Your task to perform on an android device: What's on my calendar tomorrow? Image 0: 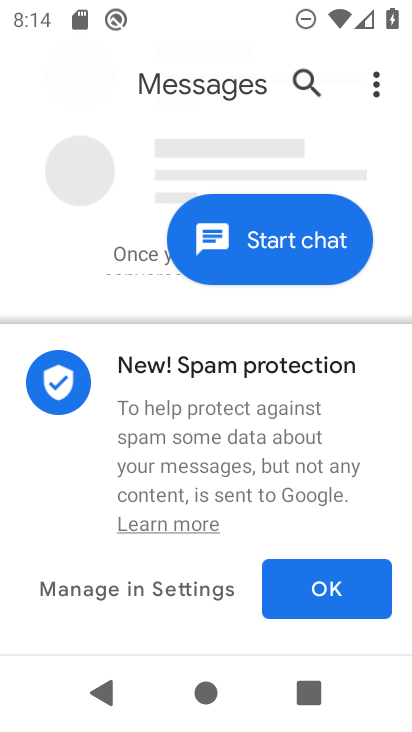
Step 0: press home button
Your task to perform on an android device: What's on my calendar tomorrow? Image 1: 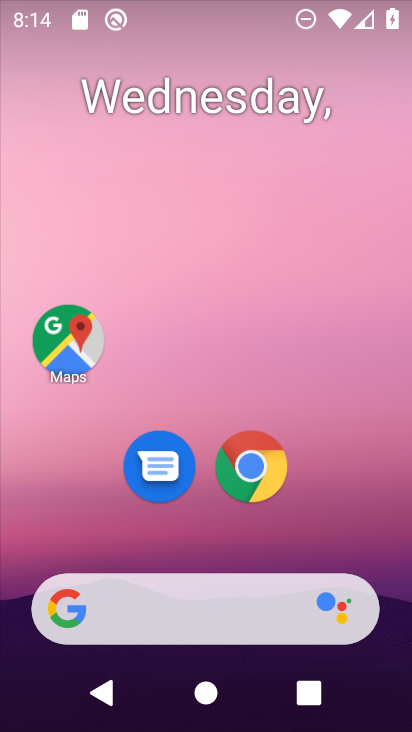
Step 1: drag from (245, 518) to (274, 50)
Your task to perform on an android device: What's on my calendar tomorrow? Image 2: 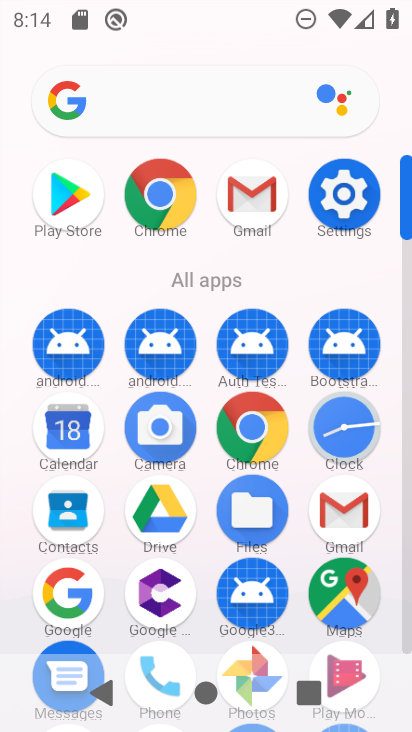
Step 2: click (71, 439)
Your task to perform on an android device: What's on my calendar tomorrow? Image 3: 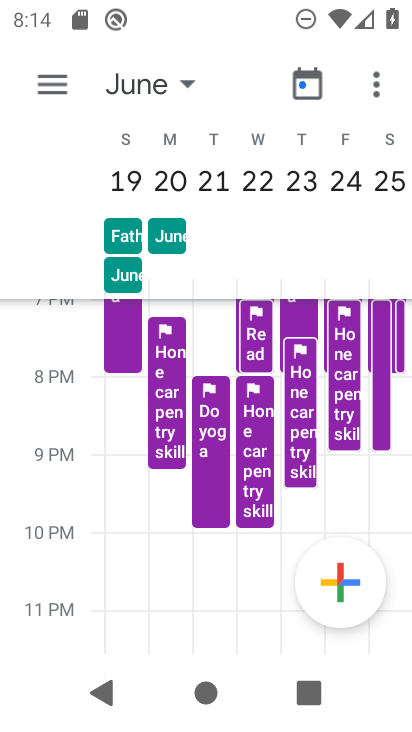
Step 3: drag from (189, 183) to (410, 187)
Your task to perform on an android device: What's on my calendar tomorrow? Image 4: 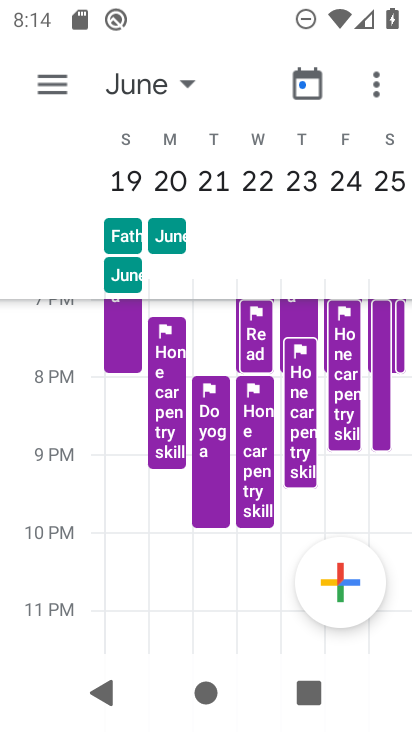
Step 4: drag from (136, 188) to (393, 218)
Your task to perform on an android device: What's on my calendar tomorrow? Image 5: 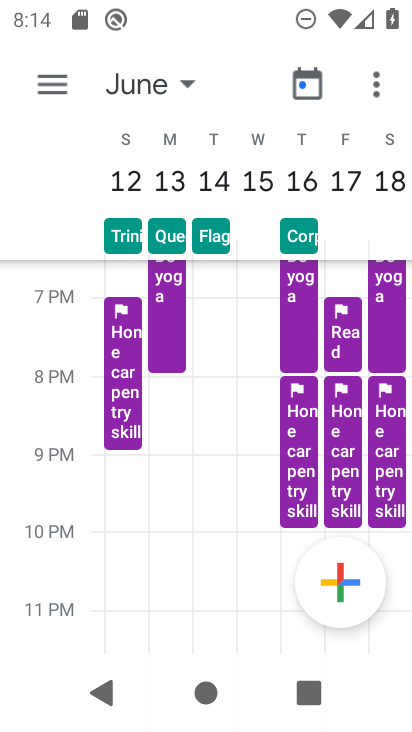
Step 5: click (157, 87)
Your task to perform on an android device: What's on my calendar tomorrow? Image 6: 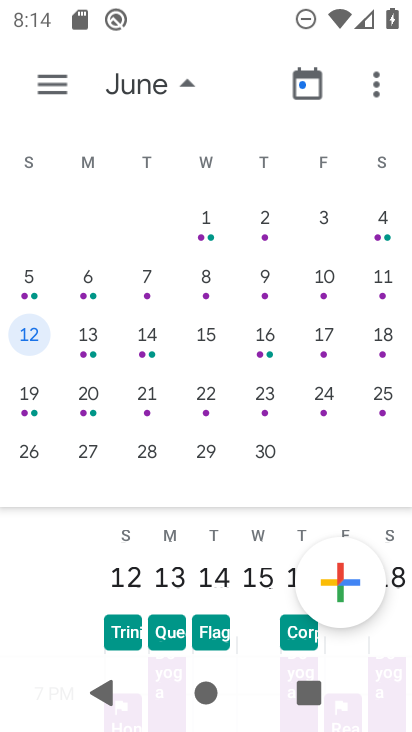
Step 6: drag from (39, 318) to (410, 412)
Your task to perform on an android device: What's on my calendar tomorrow? Image 7: 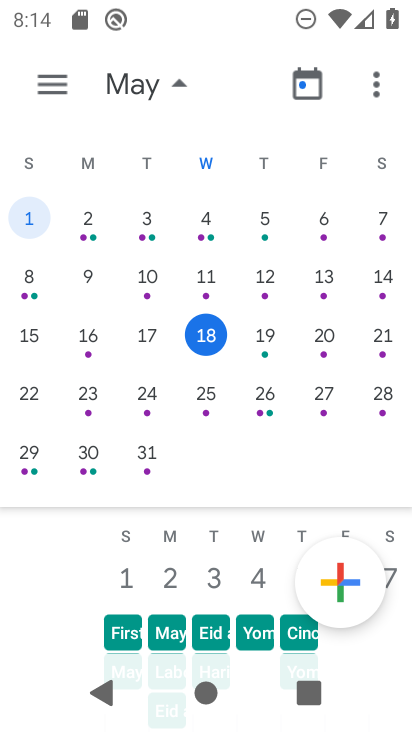
Step 7: click (204, 323)
Your task to perform on an android device: What's on my calendar tomorrow? Image 8: 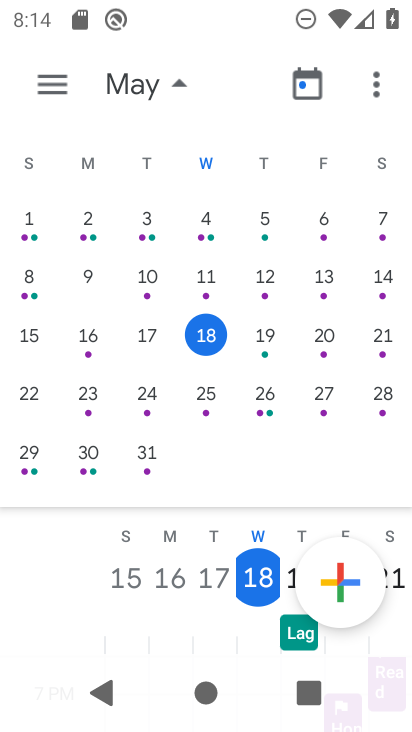
Step 8: click (205, 323)
Your task to perform on an android device: What's on my calendar tomorrow? Image 9: 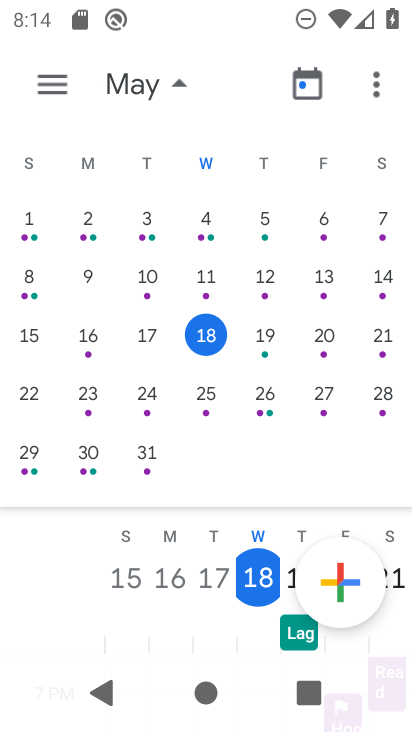
Step 9: click (39, 70)
Your task to perform on an android device: What's on my calendar tomorrow? Image 10: 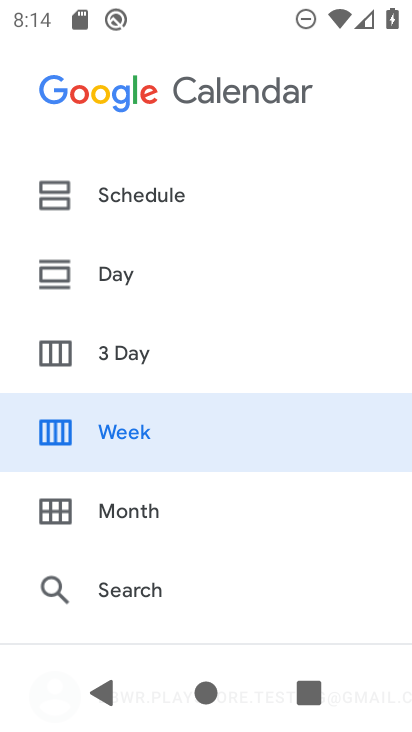
Step 10: click (133, 360)
Your task to perform on an android device: What's on my calendar tomorrow? Image 11: 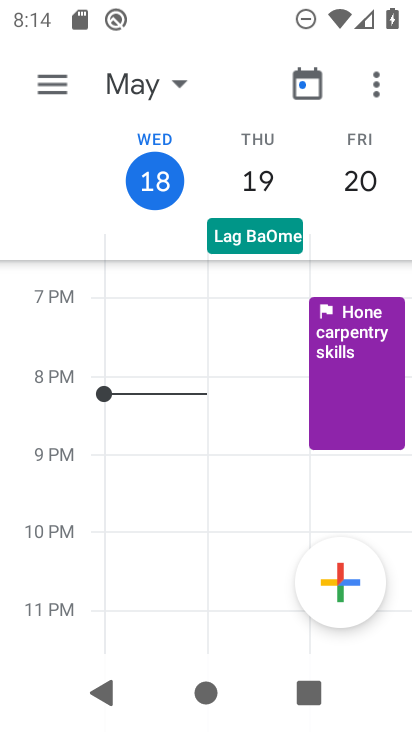
Step 11: task complete